Your task to perform on an android device: open wifi settings Image 0: 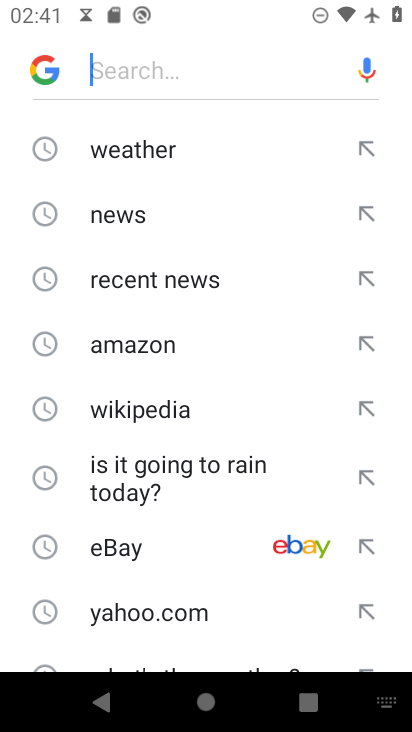
Step 0: press home button
Your task to perform on an android device: open wifi settings Image 1: 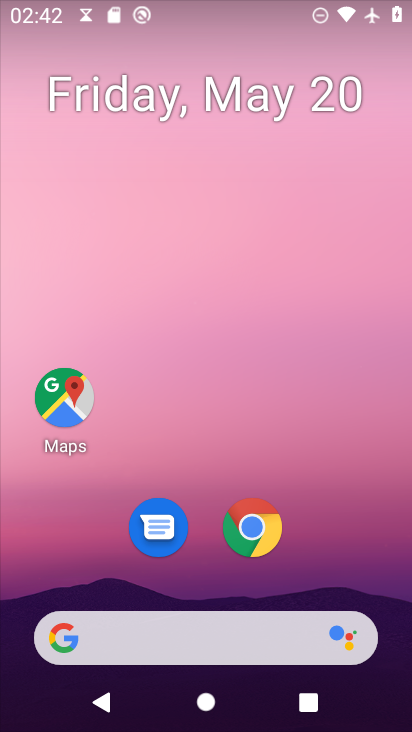
Step 1: drag from (188, 605) to (235, 147)
Your task to perform on an android device: open wifi settings Image 2: 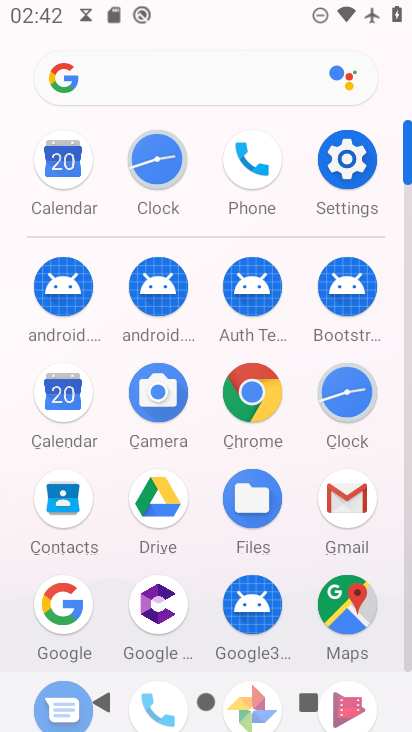
Step 2: click (351, 180)
Your task to perform on an android device: open wifi settings Image 3: 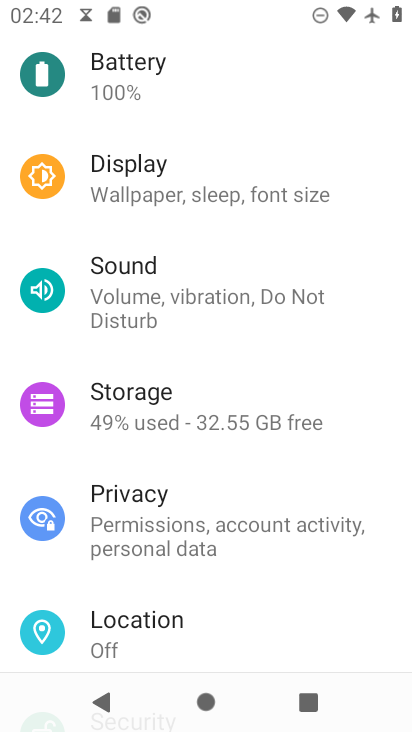
Step 3: drag from (298, 132) to (252, 566)
Your task to perform on an android device: open wifi settings Image 4: 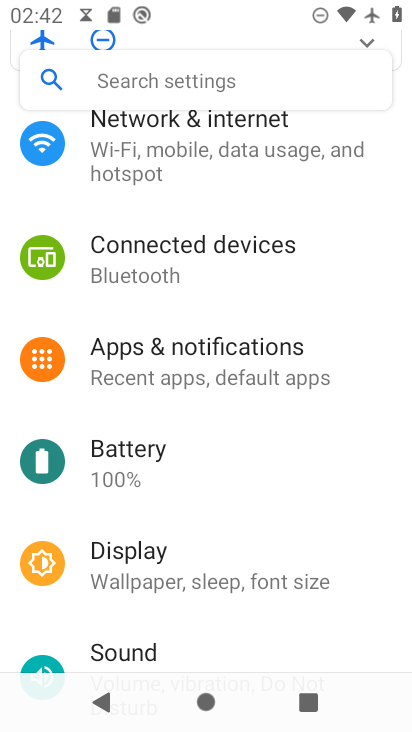
Step 4: drag from (288, 188) to (231, 546)
Your task to perform on an android device: open wifi settings Image 5: 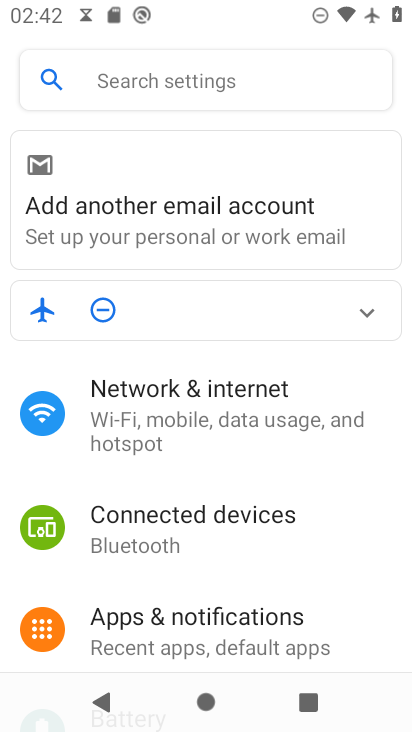
Step 5: click (228, 404)
Your task to perform on an android device: open wifi settings Image 6: 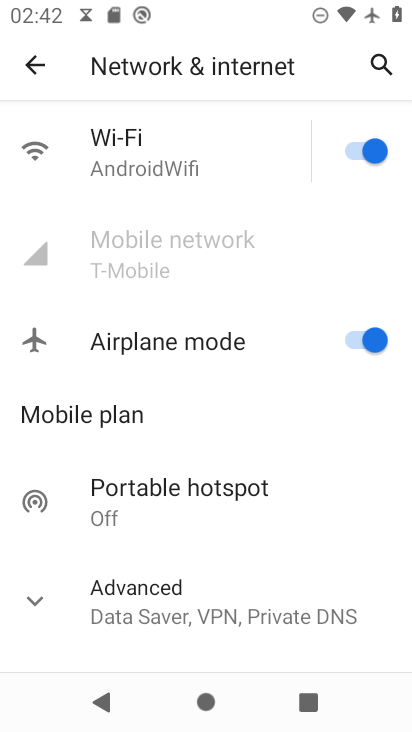
Step 6: click (174, 166)
Your task to perform on an android device: open wifi settings Image 7: 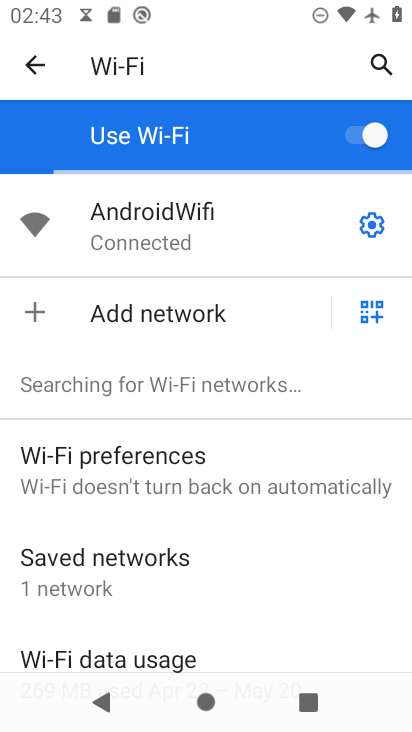
Step 7: task complete